Your task to perform on an android device: Add "usb-b" to the cart on ebay.com, then select checkout. Image 0: 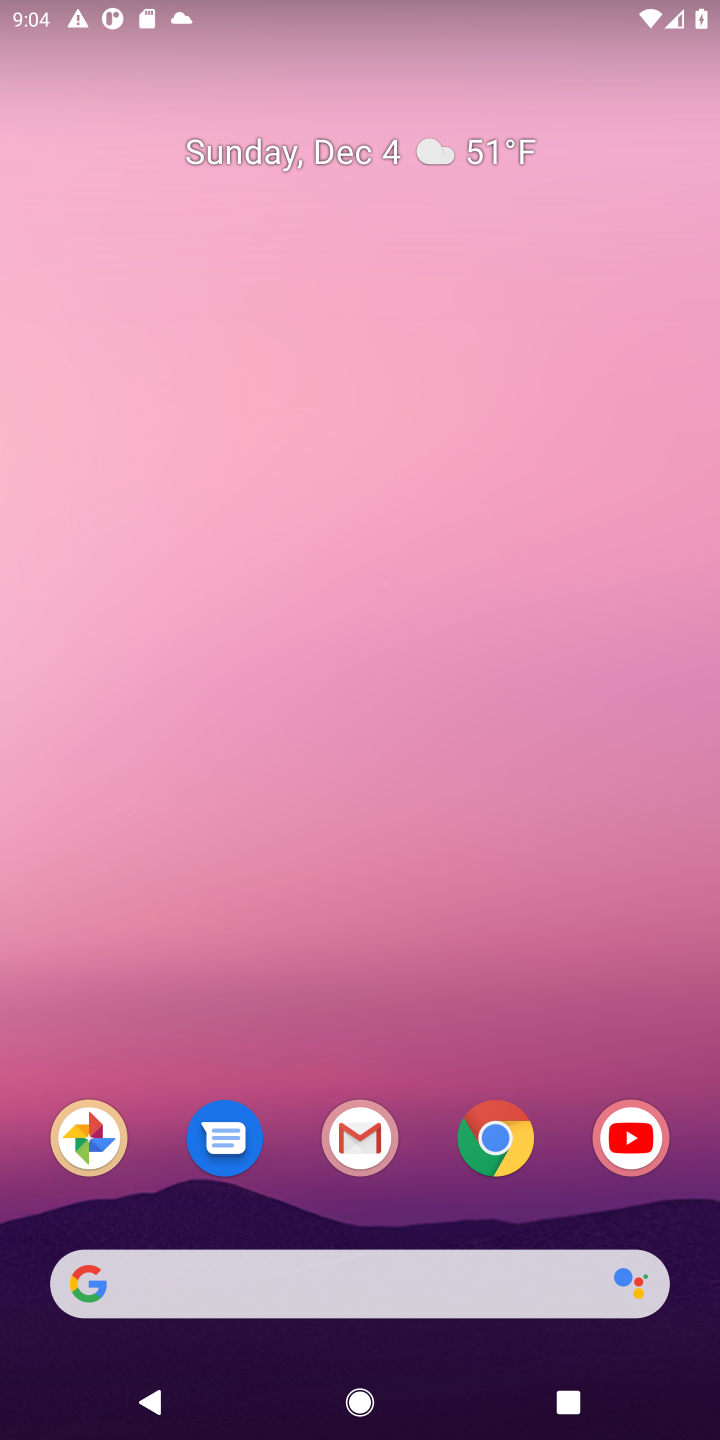
Step 0: click (492, 1137)
Your task to perform on an android device: Add "usb-b" to the cart on ebay.com, then select checkout. Image 1: 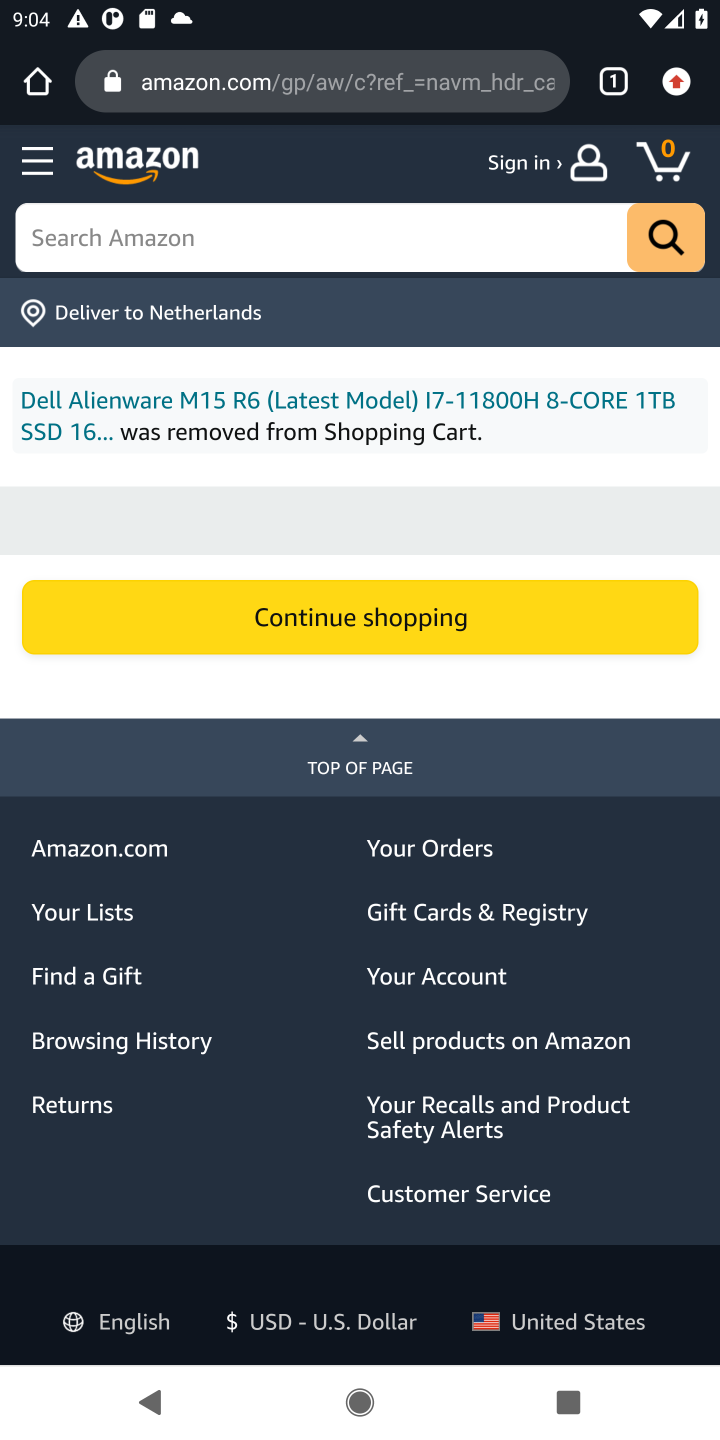
Step 1: click (323, 67)
Your task to perform on an android device: Add "usb-b" to the cart on ebay.com, then select checkout. Image 2: 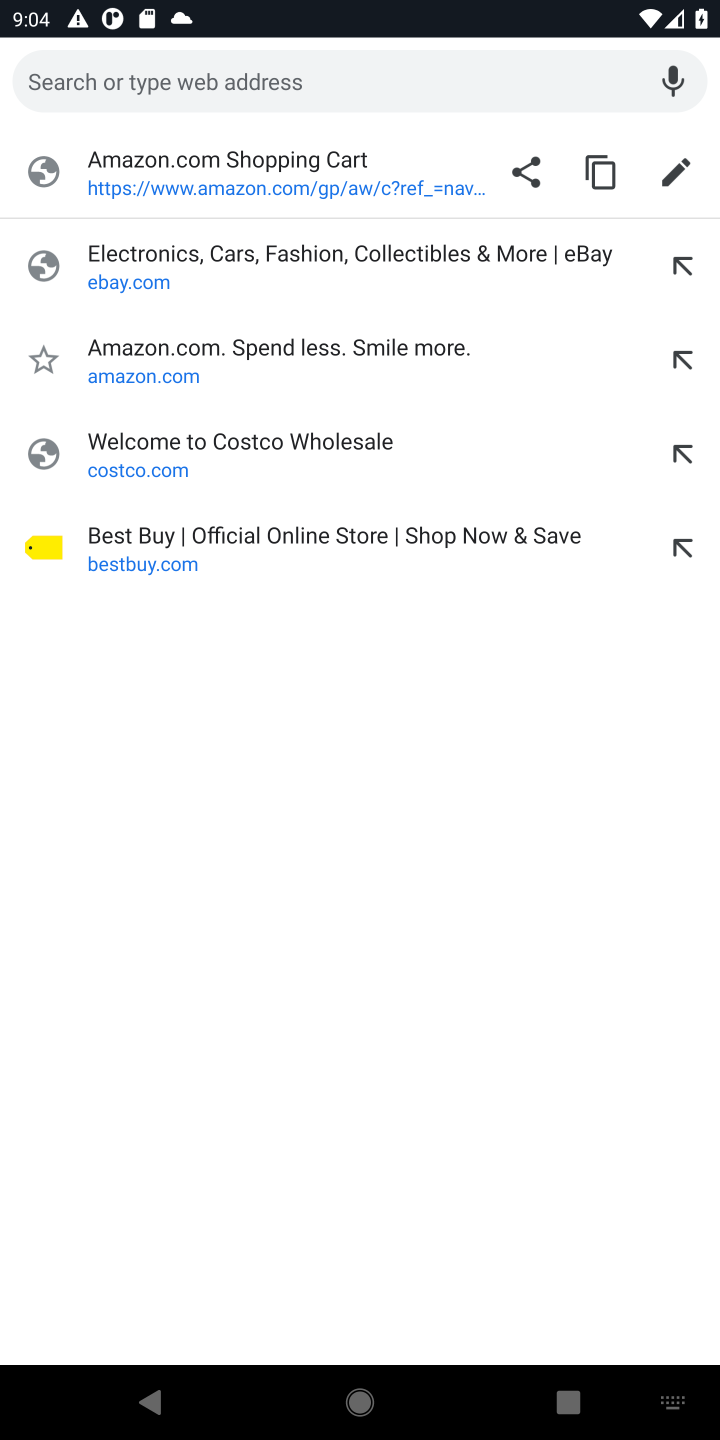
Step 2: click (212, 248)
Your task to perform on an android device: Add "usb-b" to the cart on ebay.com, then select checkout. Image 3: 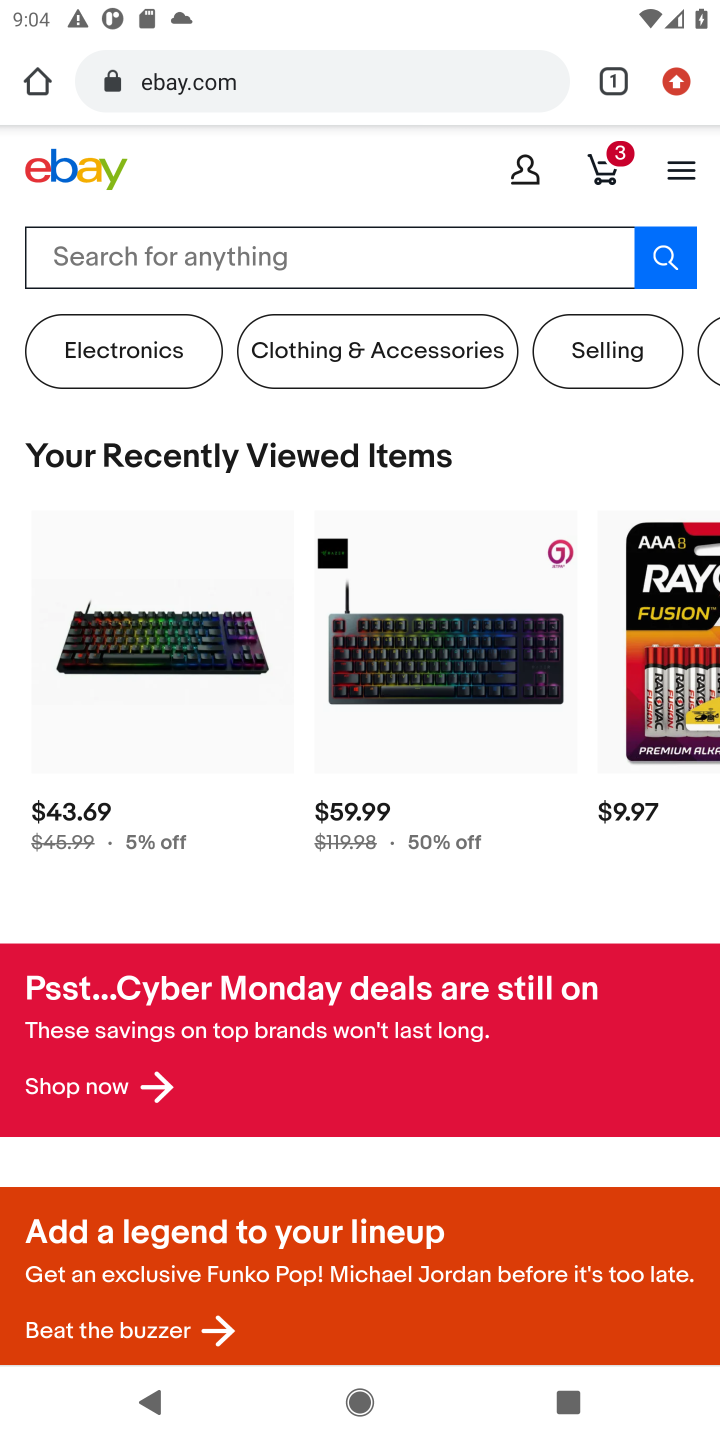
Step 3: click (551, 230)
Your task to perform on an android device: Add "usb-b" to the cart on ebay.com, then select checkout. Image 4: 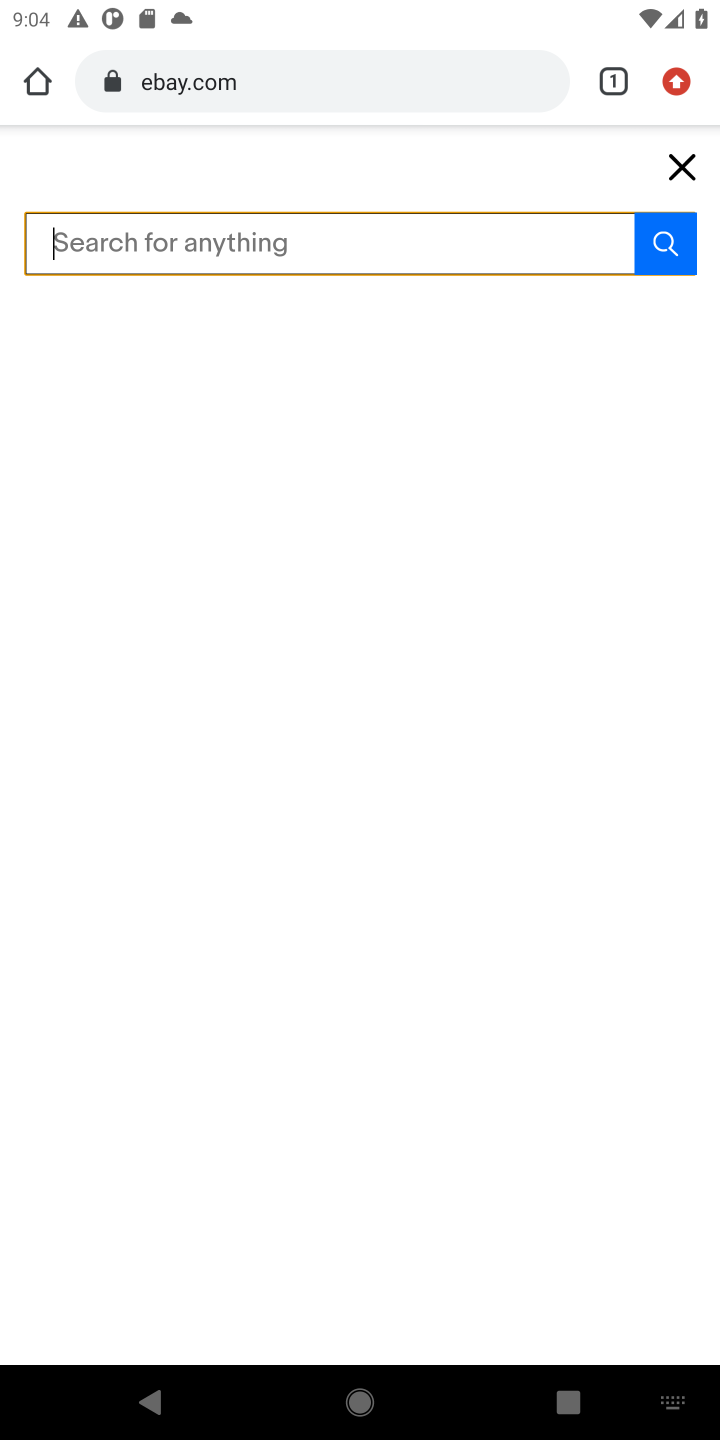
Step 4: type "usb-b"
Your task to perform on an android device: Add "usb-b" to the cart on ebay.com, then select checkout. Image 5: 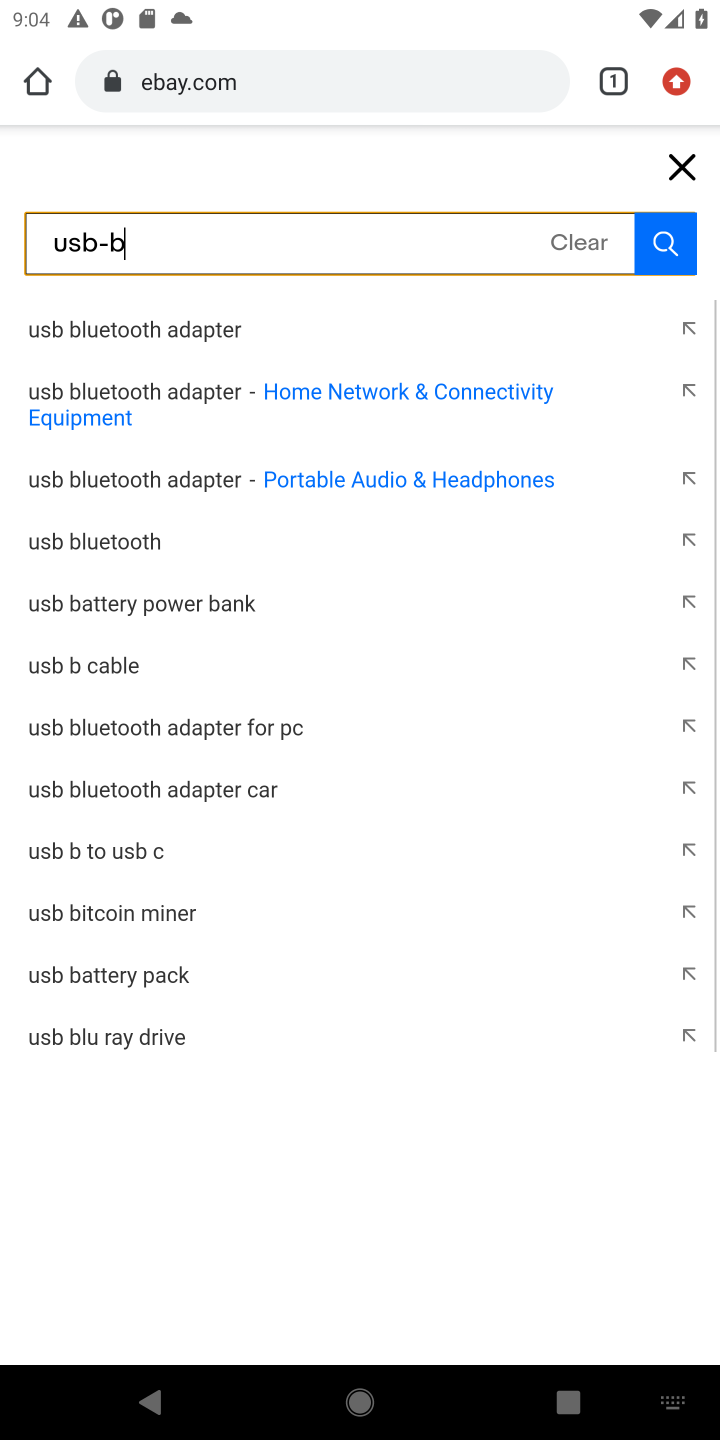
Step 5: press enter
Your task to perform on an android device: Add "usb-b" to the cart on ebay.com, then select checkout. Image 6: 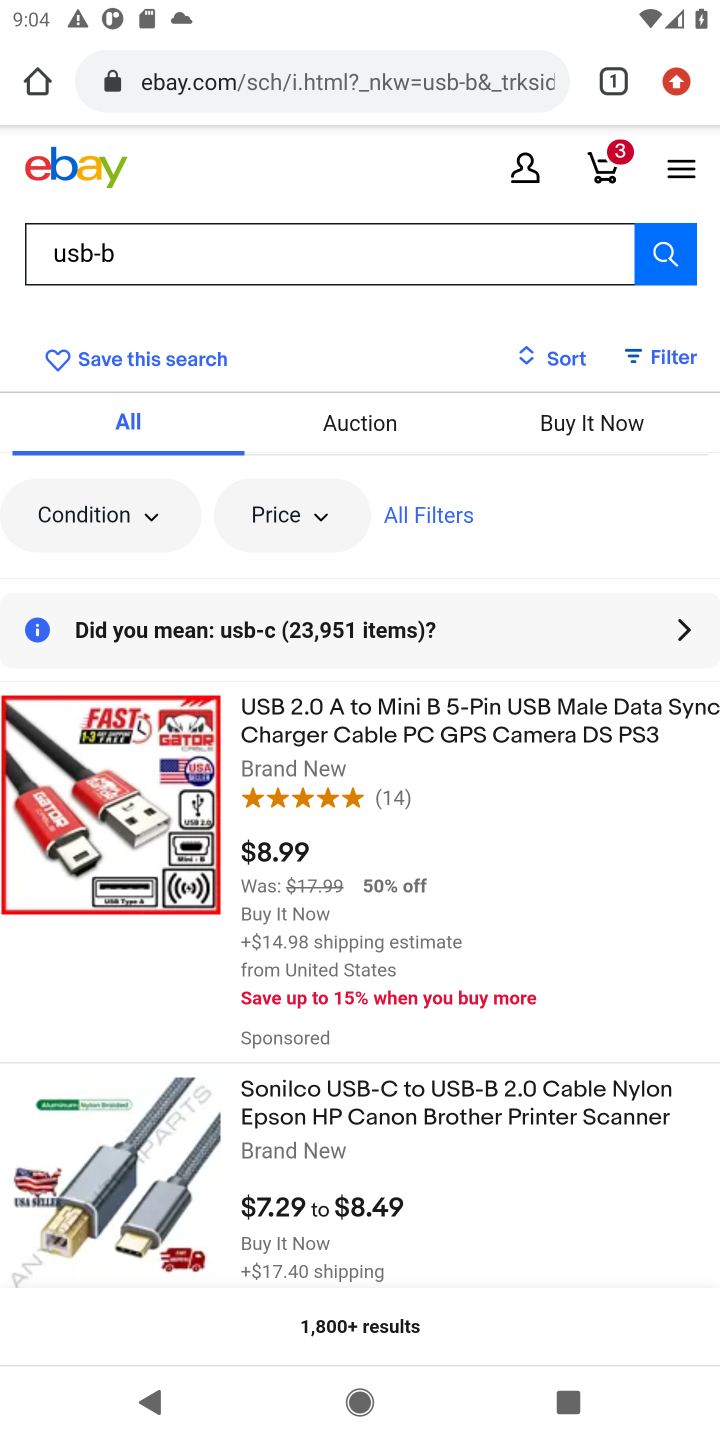
Step 6: task complete